Your task to perform on an android device: turn on data saver in the chrome app Image 0: 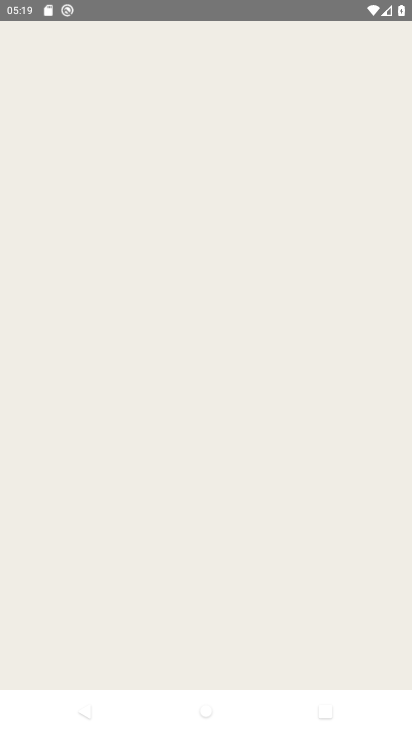
Step 0: drag from (245, 584) to (231, 107)
Your task to perform on an android device: turn on data saver in the chrome app Image 1: 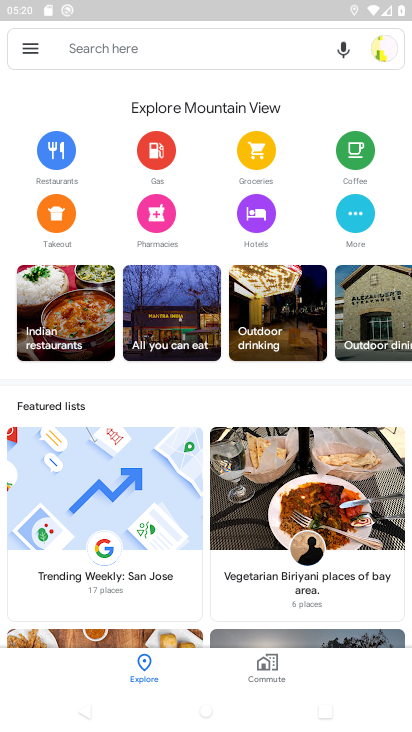
Step 1: press home button
Your task to perform on an android device: turn on data saver in the chrome app Image 2: 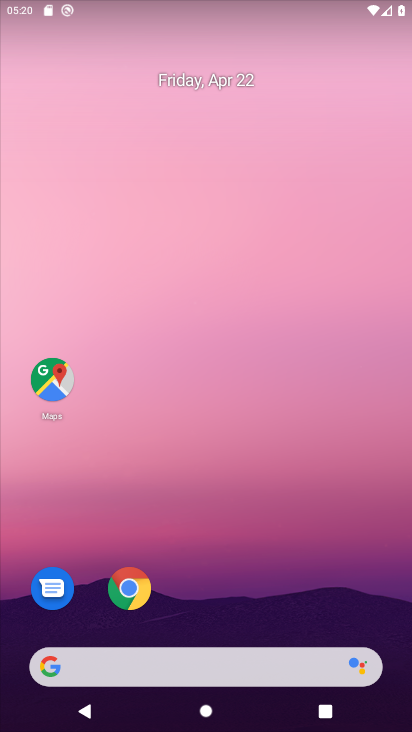
Step 2: click (137, 592)
Your task to perform on an android device: turn on data saver in the chrome app Image 3: 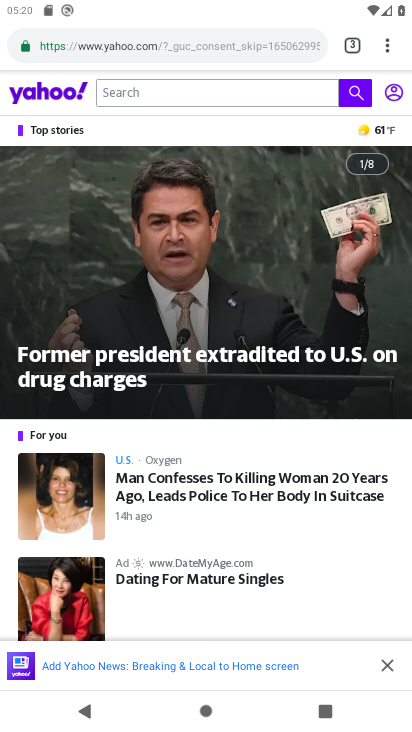
Step 3: click (394, 46)
Your task to perform on an android device: turn on data saver in the chrome app Image 4: 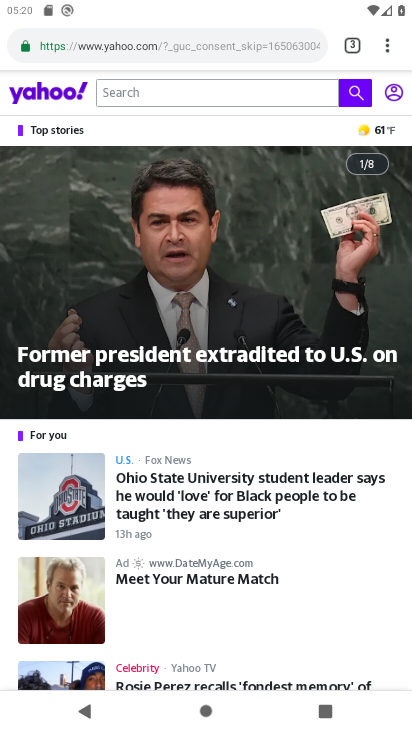
Step 4: click (393, 43)
Your task to perform on an android device: turn on data saver in the chrome app Image 5: 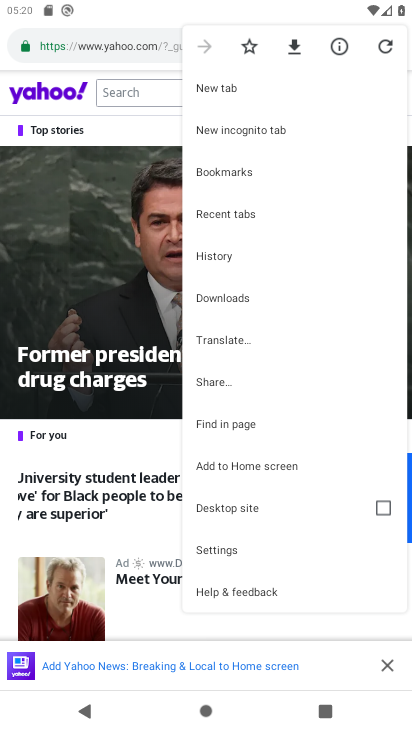
Step 5: click (245, 545)
Your task to perform on an android device: turn on data saver in the chrome app Image 6: 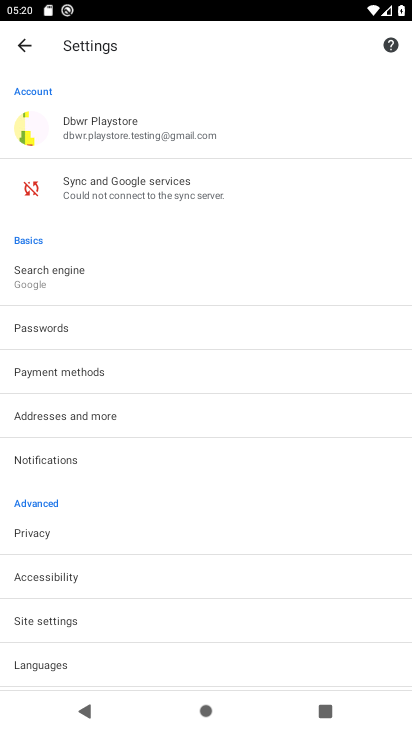
Step 6: drag from (137, 624) to (171, 274)
Your task to perform on an android device: turn on data saver in the chrome app Image 7: 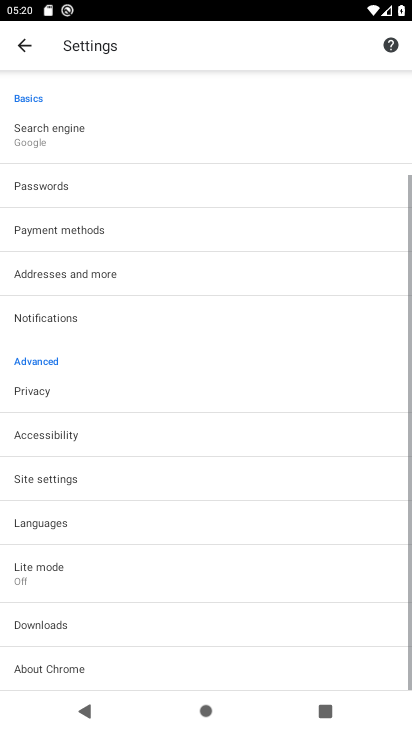
Step 7: click (85, 579)
Your task to perform on an android device: turn on data saver in the chrome app Image 8: 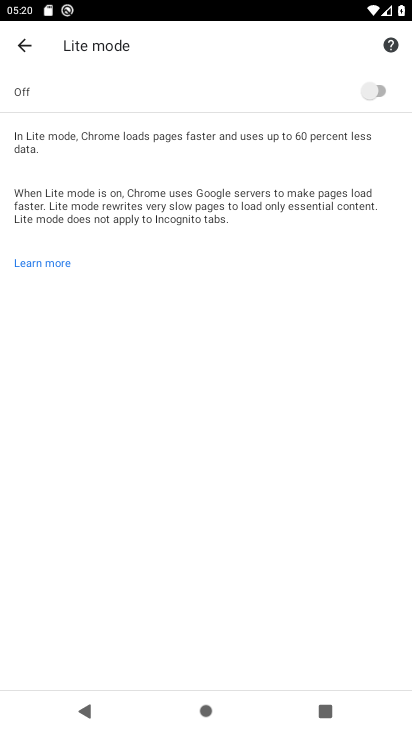
Step 8: click (384, 87)
Your task to perform on an android device: turn on data saver in the chrome app Image 9: 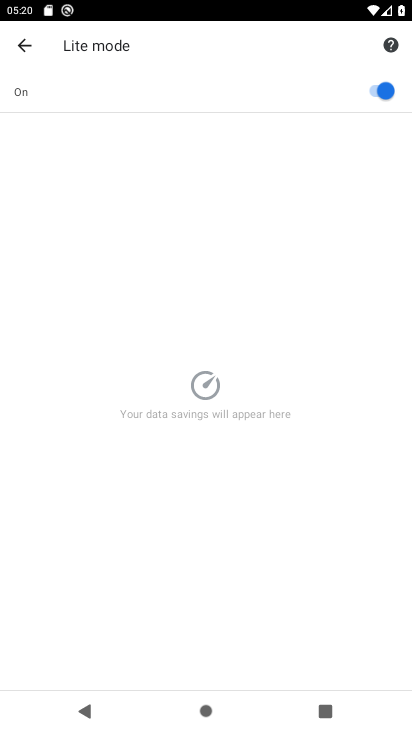
Step 9: task complete